Your task to perform on an android device: turn on bluetooth scan Image 0: 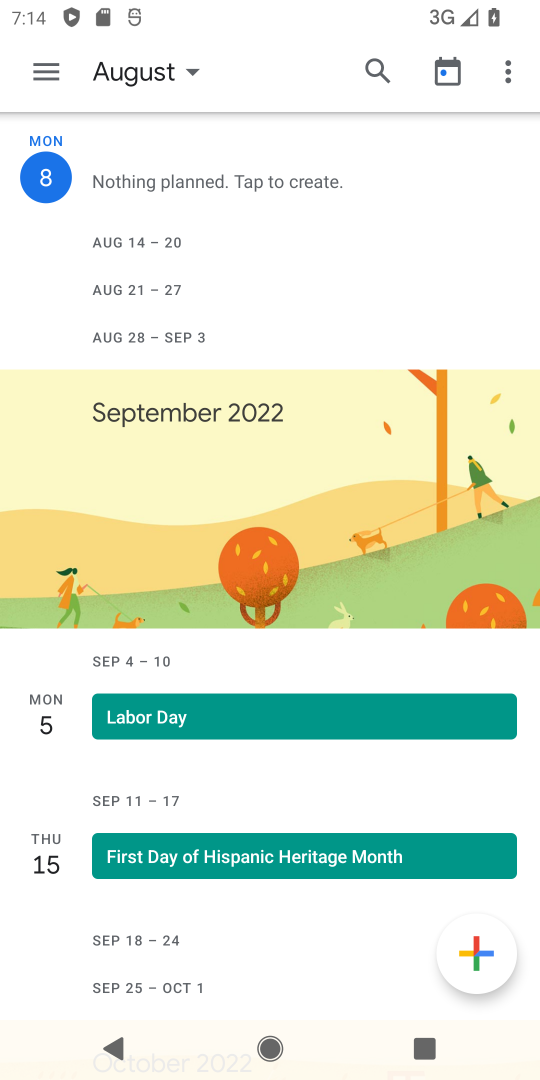
Step 0: press home button
Your task to perform on an android device: turn on bluetooth scan Image 1: 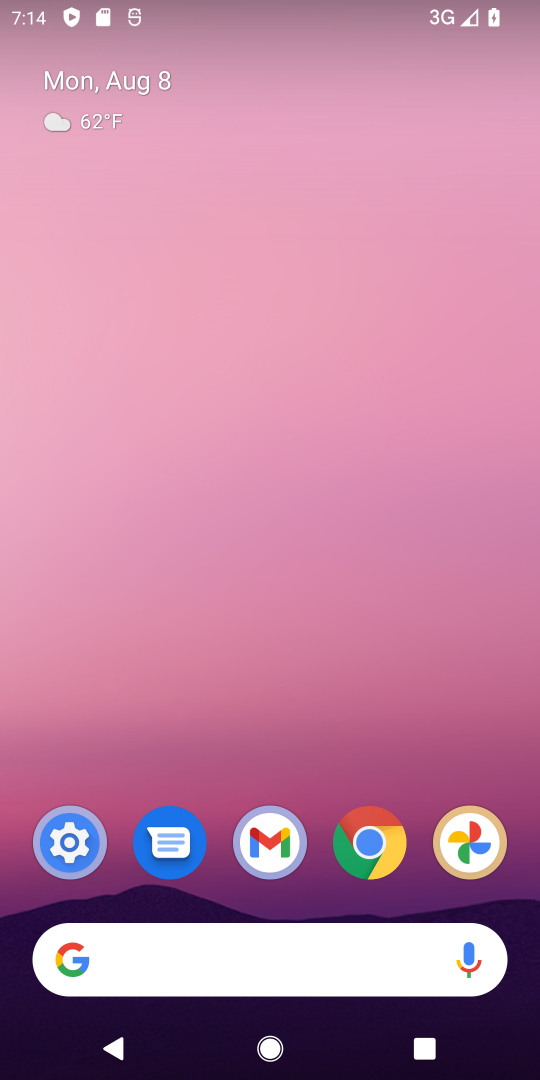
Step 1: drag from (266, 903) to (162, 97)
Your task to perform on an android device: turn on bluetooth scan Image 2: 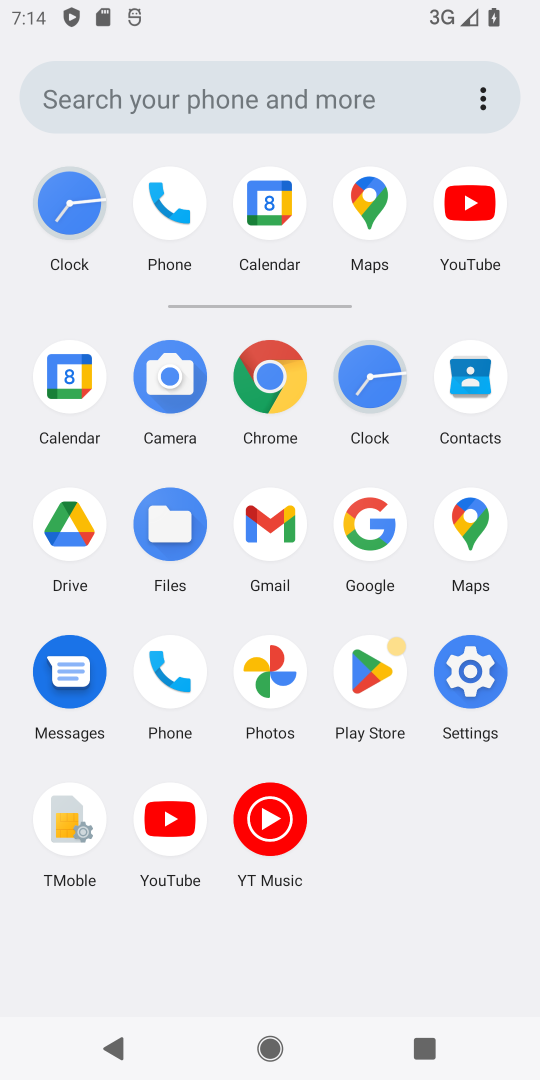
Step 2: click (468, 701)
Your task to perform on an android device: turn on bluetooth scan Image 3: 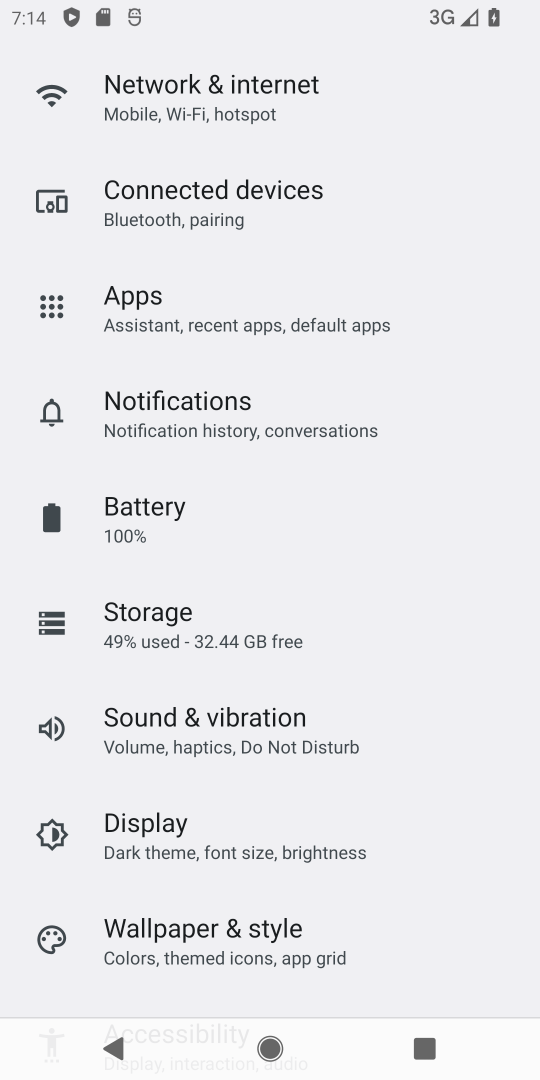
Step 3: drag from (145, 453) to (169, 980)
Your task to perform on an android device: turn on bluetooth scan Image 4: 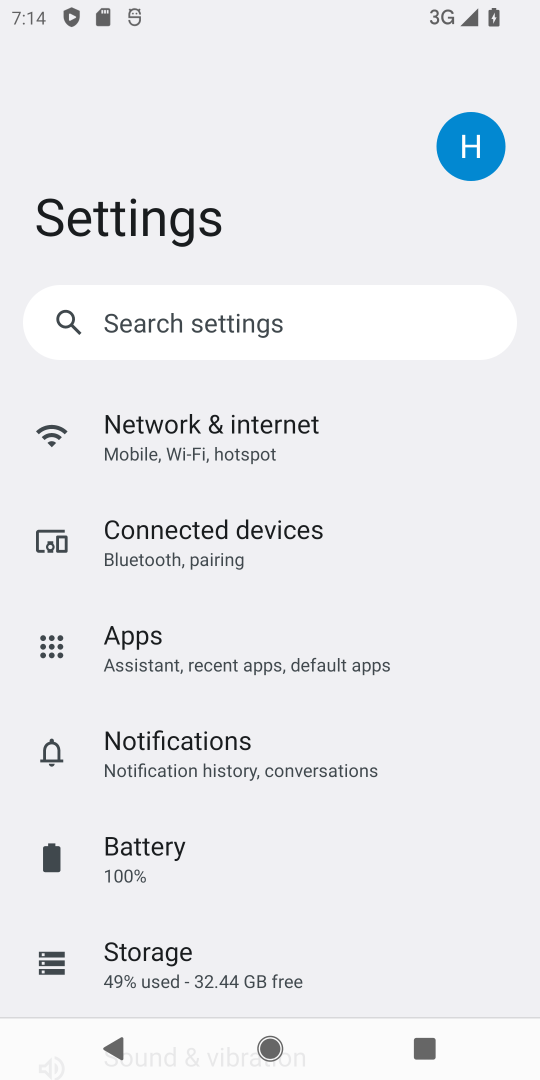
Step 4: drag from (347, 885) to (302, 403)
Your task to perform on an android device: turn on bluetooth scan Image 5: 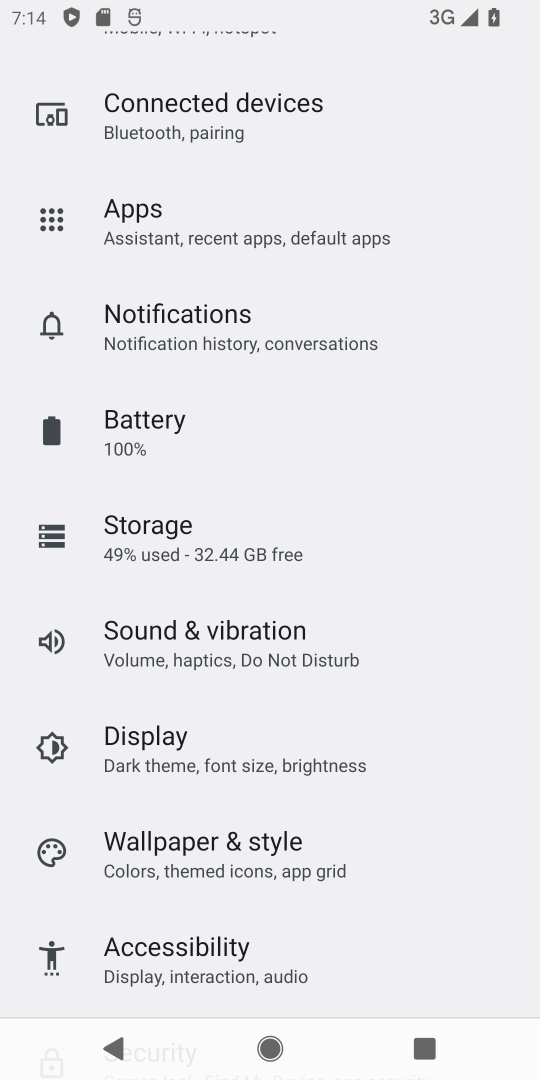
Step 5: drag from (276, 881) to (265, 304)
Your task to perform on an android device: turn on bluetooth scan Image 6: 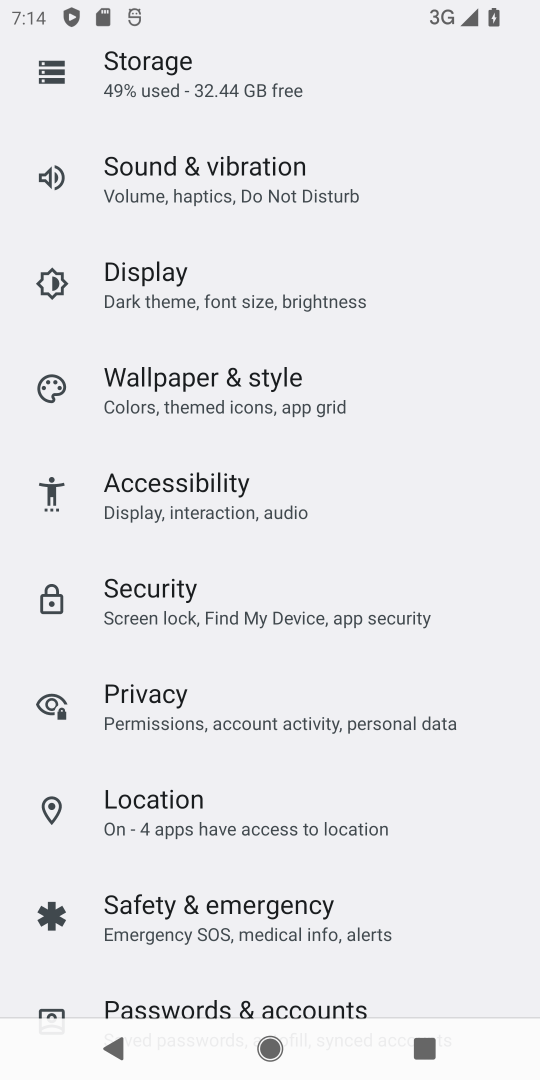
Step 6: click (197, 871)
Your task to perform on an android device: turn on bluetooth scan Image 7: 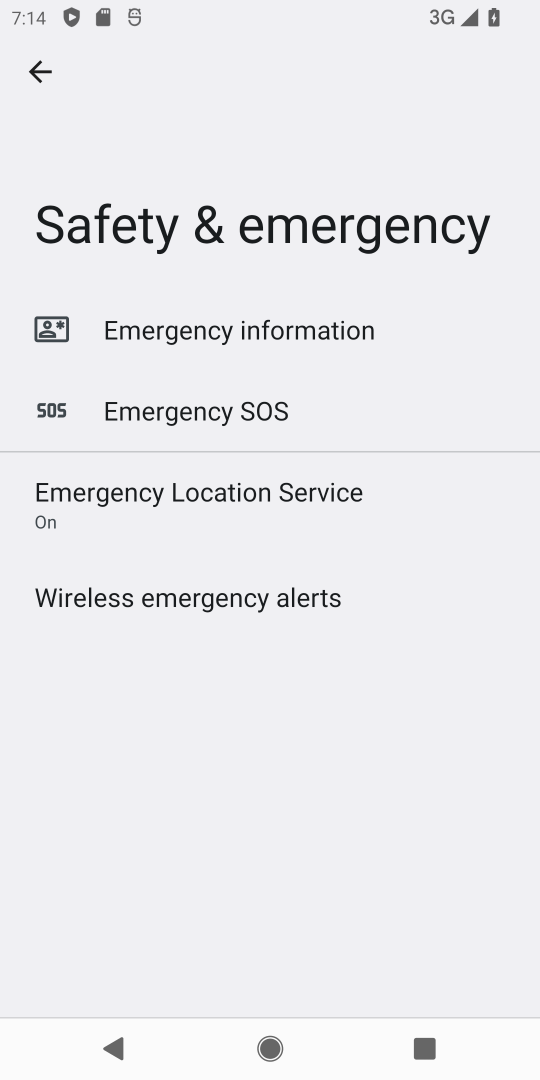
Step 7: click (51, 69)
Your task to perform on an android device: turn on bluetooth scan Image 8: 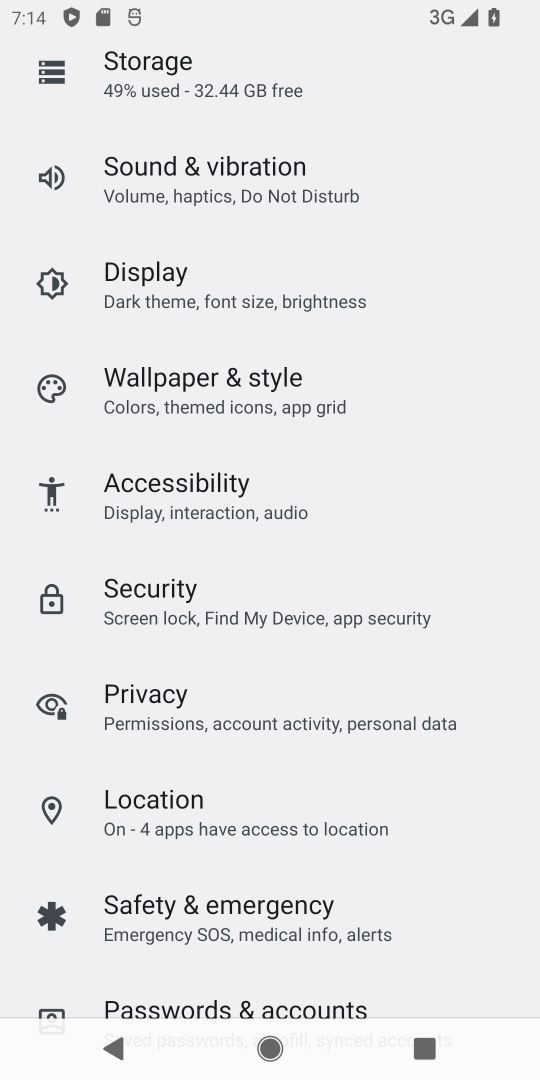
Step 8: click (118, 829)
Your task to perform on an android device: turn on bluetooth scan Image 9: 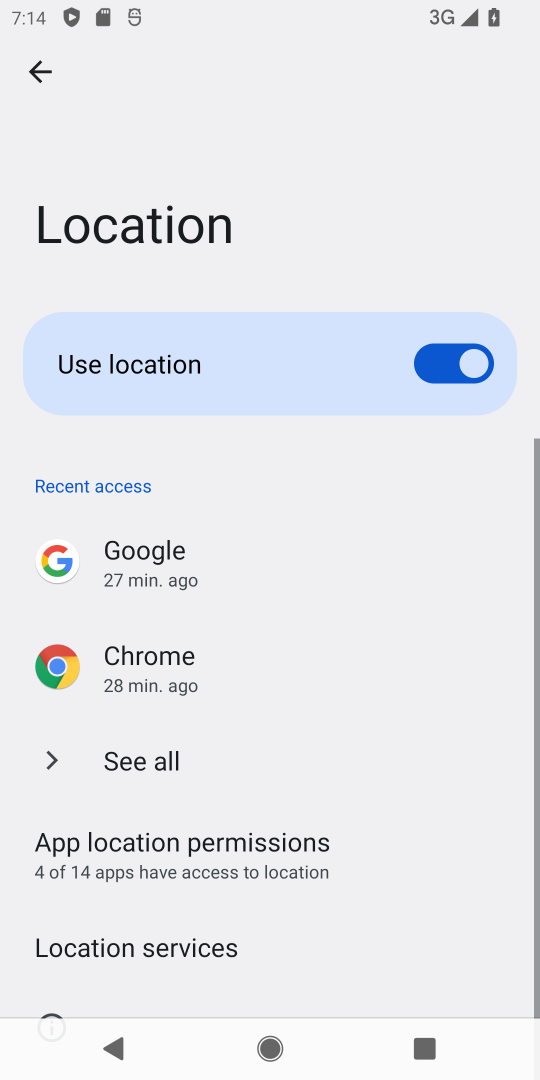
Step 9: click (146, 935)
Your task to perform on an android device: turn on bluetooth scan Image 10: 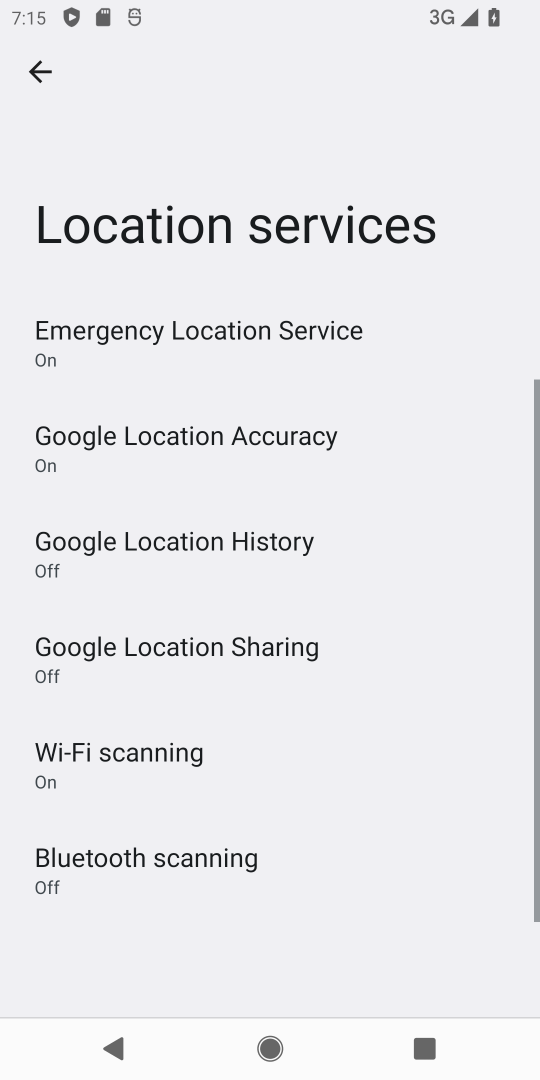
Step 10: click (165, 883)
Your task to perform on an android device: turn on bluetooth scan Image 11: 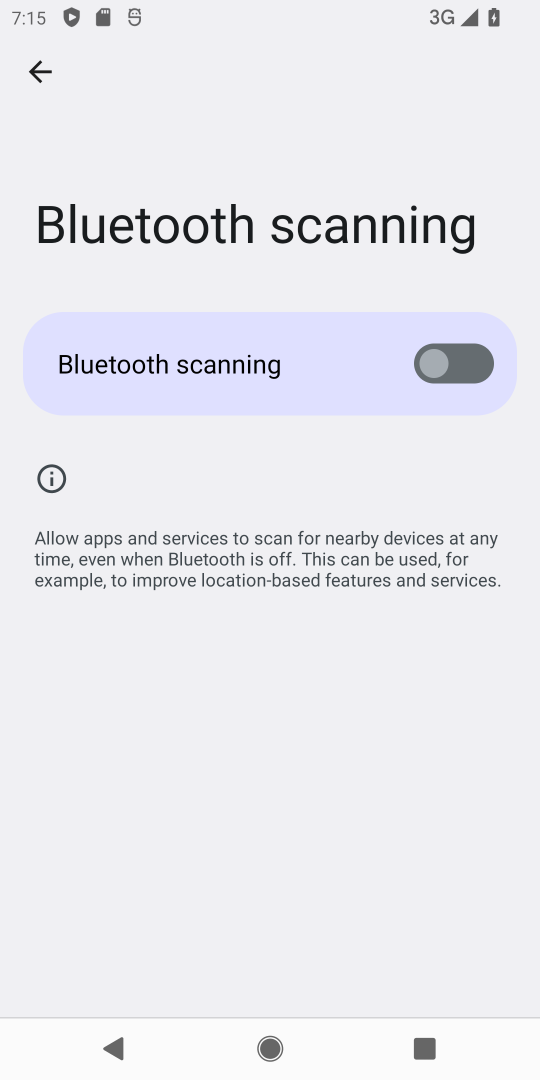
Step 11: click (456, 367)
Your task to perform on an android device: turn on bluetooth scan Image 12: 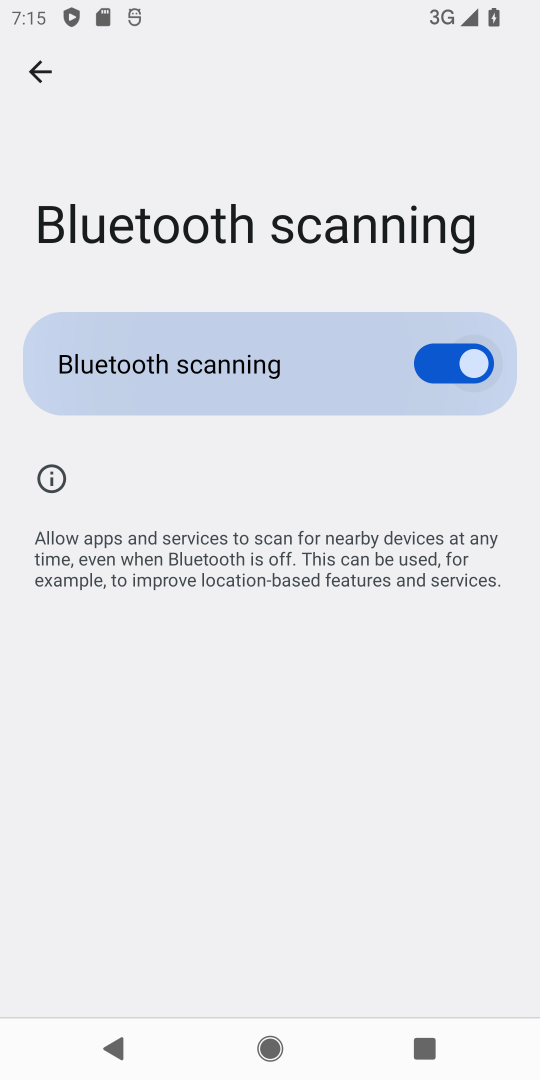
Step 12: task complete